Your task to perform on an android device: Search for the best rated drill on Lowes.com Image 0: 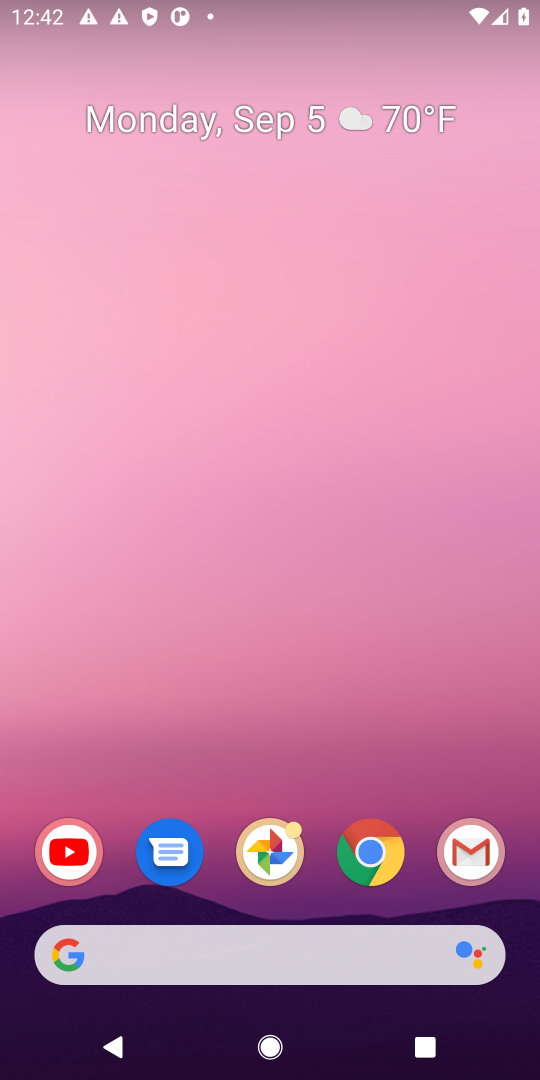
Step 0: click (365, 852)
Your task to perform on an android device: Search for the best rated drill on Lowes.com Image 1: 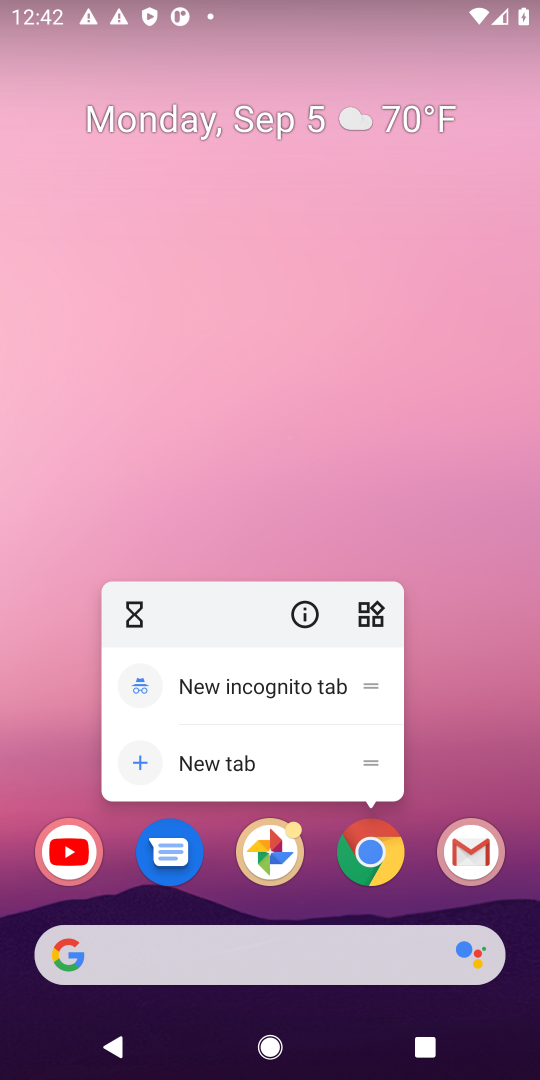
Step 1: click (365, 852)
Your task to perform on an android device: Search for the best rated drill on Lowes.com Image 2: 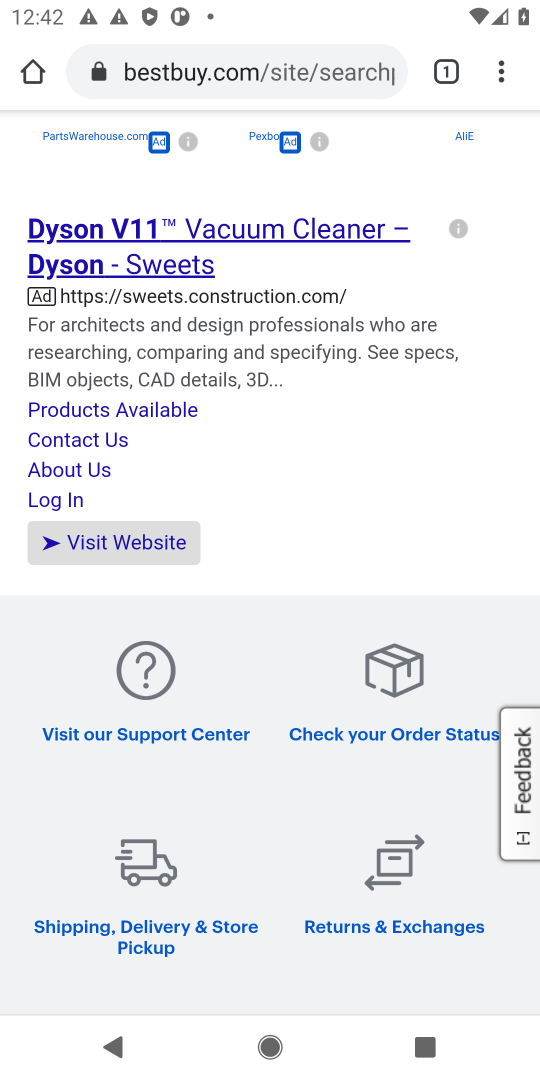
Step 2: click (295, 54)
Your task to perform on an android device: Search for the best rated drill on Lowes.com Image 3: 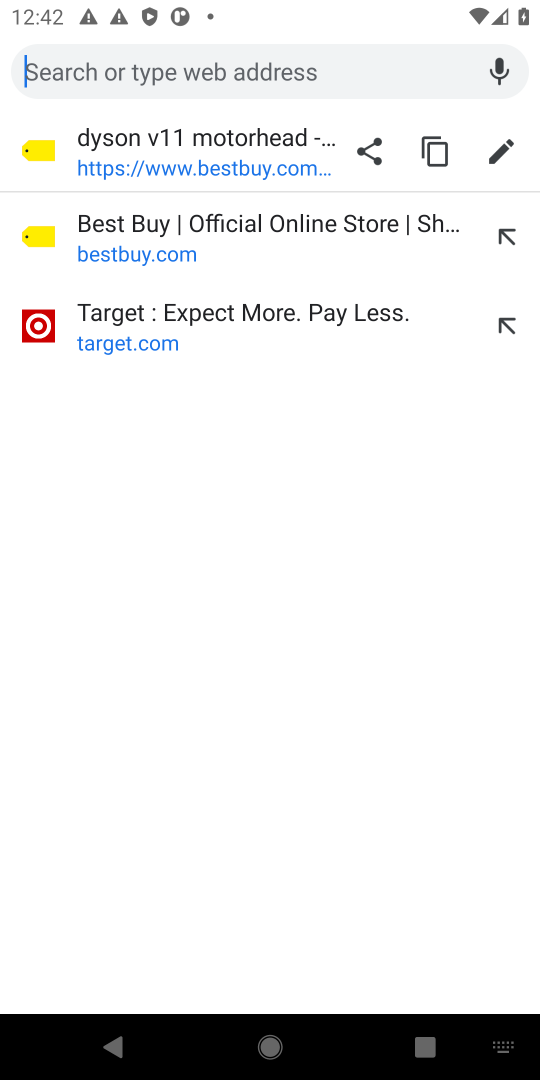
Step 3: type "lowes.com"
Your task to perform on an android device: Search for the best rated drill on Lowes.com Image 4: 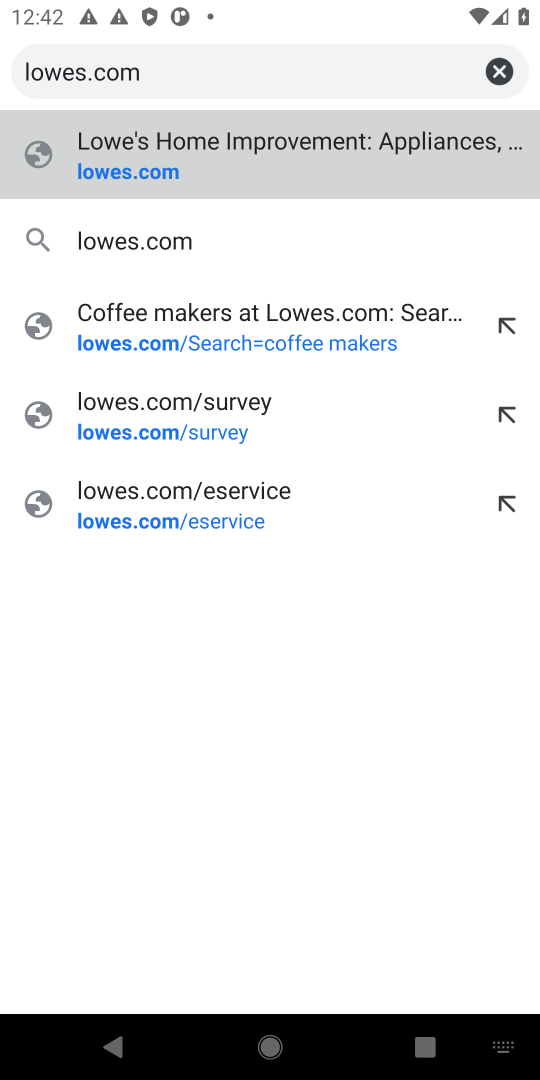
Step 4: click (174, 149)
Your task to perform on an android device: Search for the best rated drill on Lowes.com Image 5: 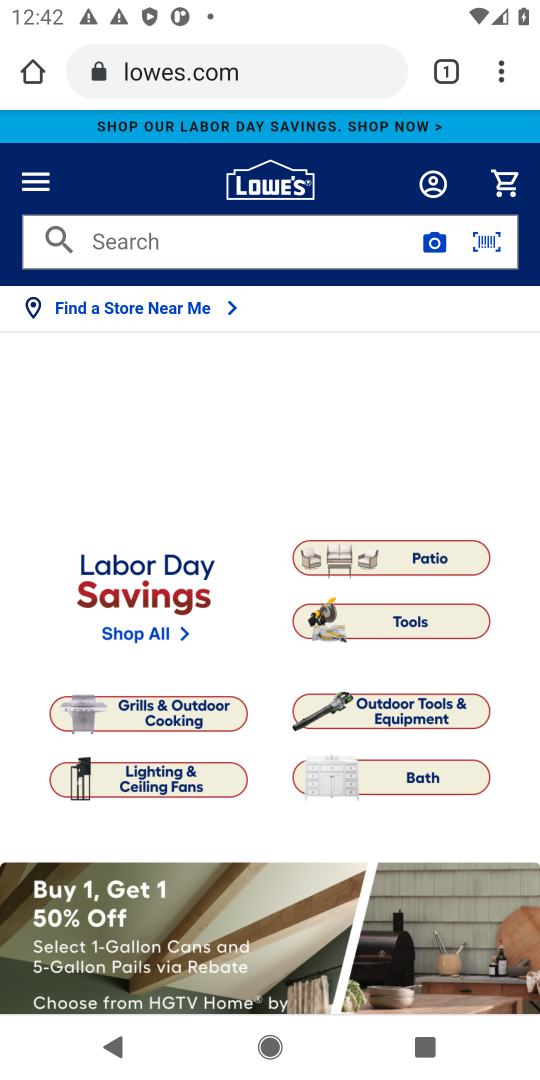
Step 5: click (165, 232)
Your task to perform on an android device: Search for the best rated drill on Lowes.com Image 6: 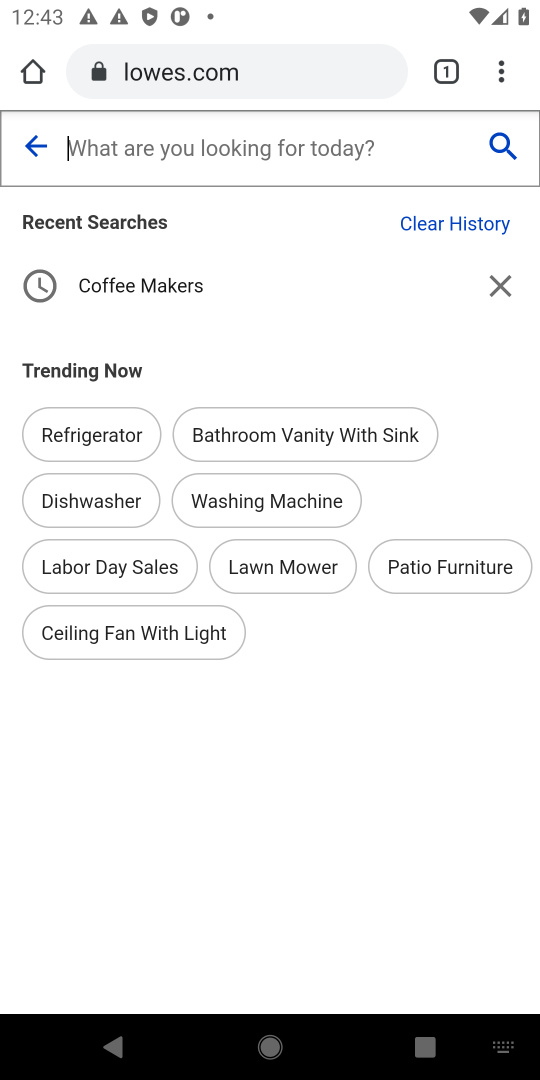
Step 6: type "drill"
Your task to perform on an android device: Search for the best rated drill on Lowes.com Image 7: 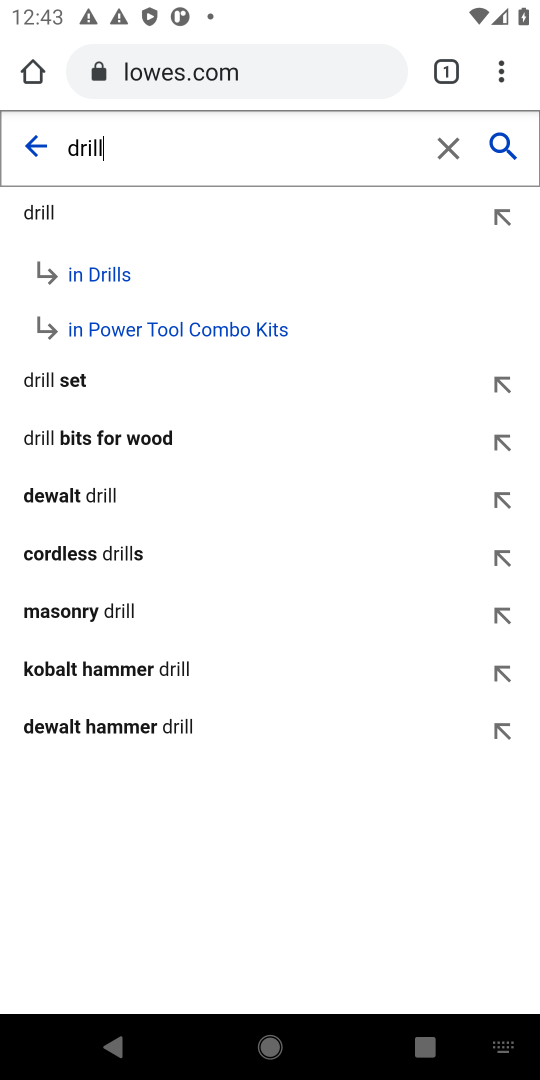
Step 7: click (46, 214)
Your task to perform on an android device: Search for the best rated drill on Lowes.com Image 8: 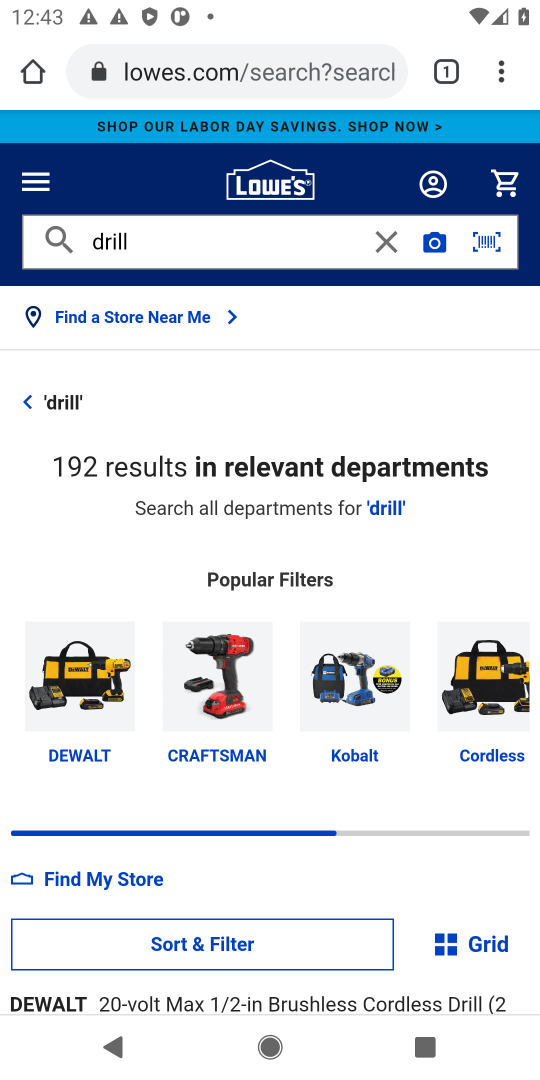
Step 8: drag from (316, 871) to (301, 343)
Your task to perform on an android device: Search for the best rated drill on Lowes.com Image 9: 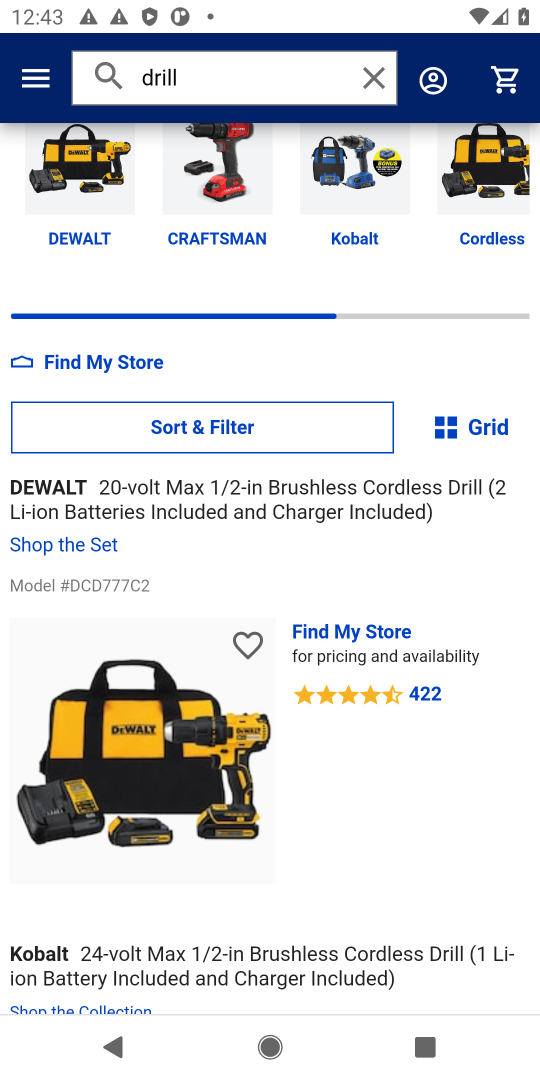
Step 9: click (176, 430)
Your task to perform on an android device: Search for the best rated drill on Lowes.com Image 10: 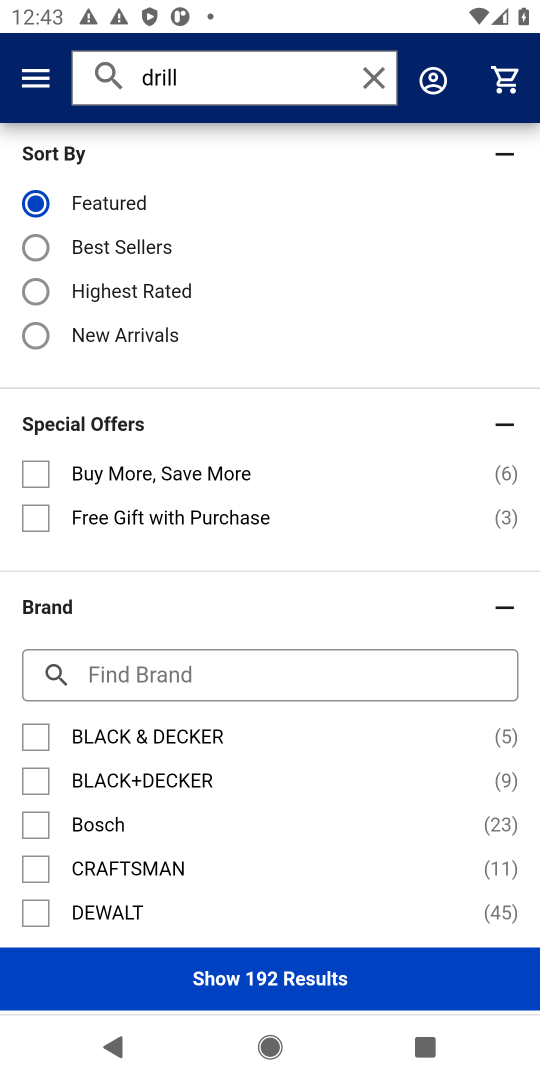
Step 10: click (38, 288)
Your task to perform on an android device: Search for the best rated drill on Lowes.com Image 11: 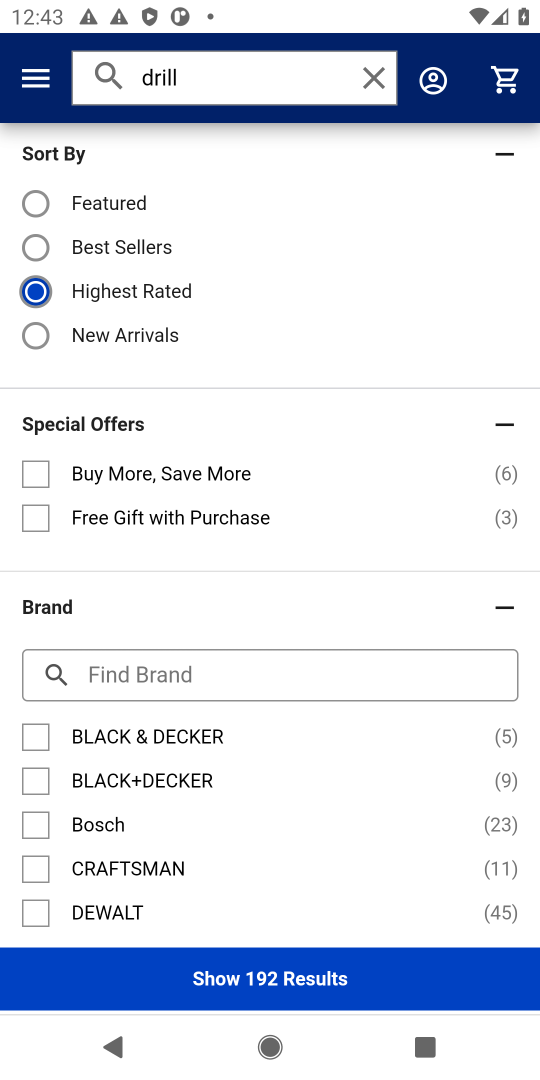
Step 11: click (249, 980)
Your task to perform on an android device: Search for the best rated drill on Lowes.com Image 12: 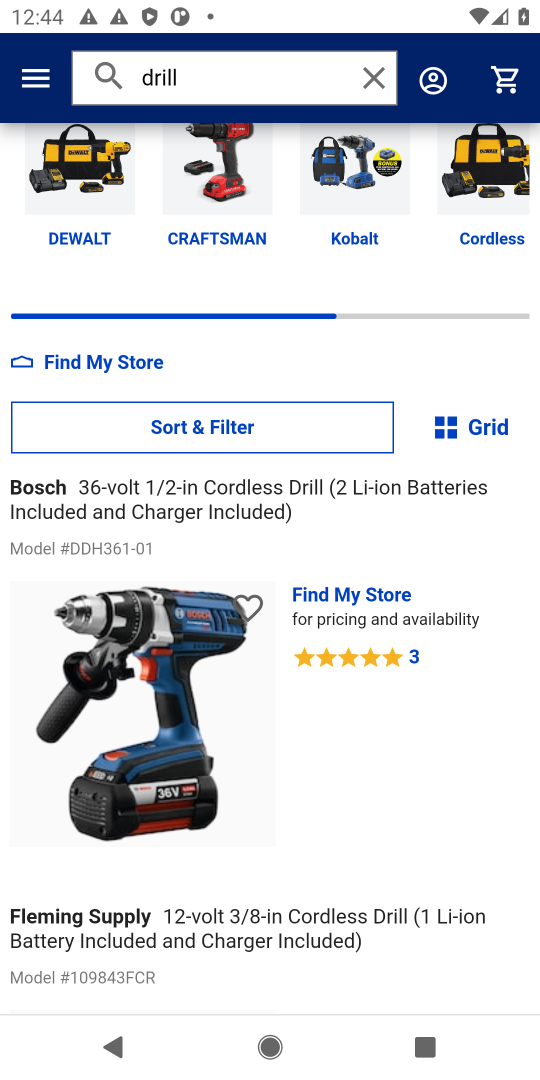
Step 12: task complete